Your task to perform on an android device: see creations saved in the google photos Image 0: 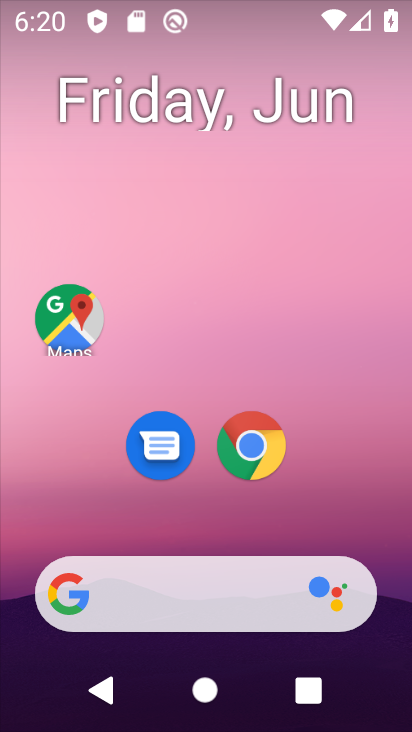
Step 0: drag from (197, 526) to (182, 118)
Your task to perform on an android device: see creations saved in the google photos Image 1: 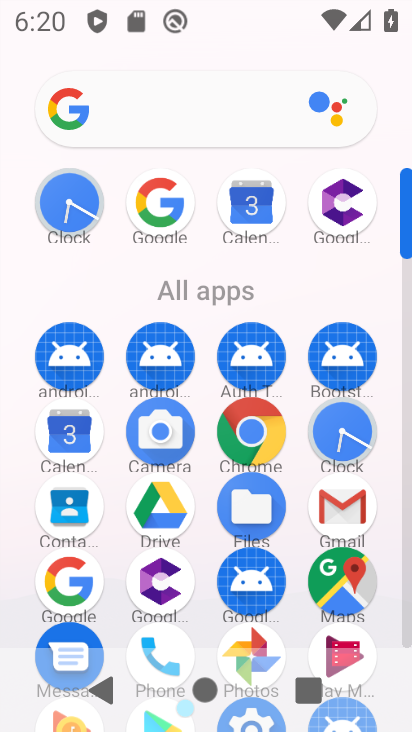
Step 1: drag from (192, 570) to (192, 323)
Your task to perform on an android device: see creations saved in the google photos Image 2: 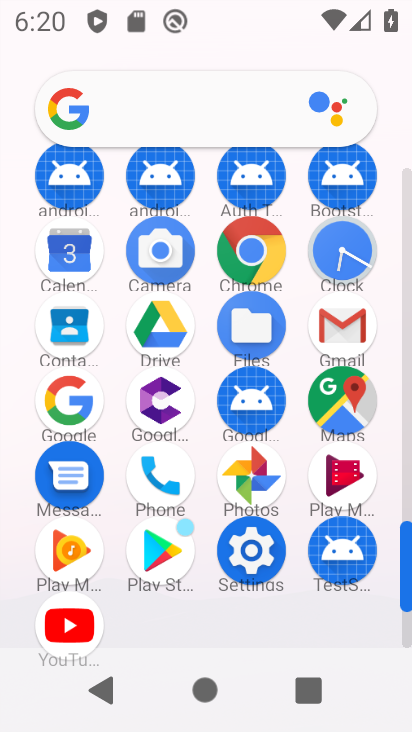
Step 2: click (253, 481)
Your task to perform on an android device: see creations saved in the google photos Image 3: 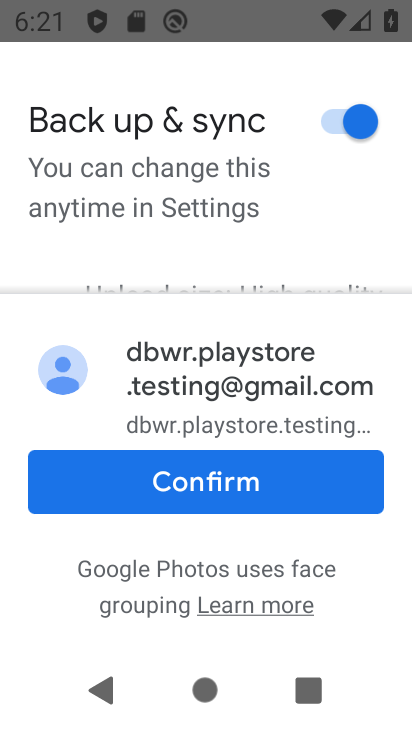
Step 3: click (235, 492)
Your task to perform on an android device: see creations saved in the google photos Image 4: 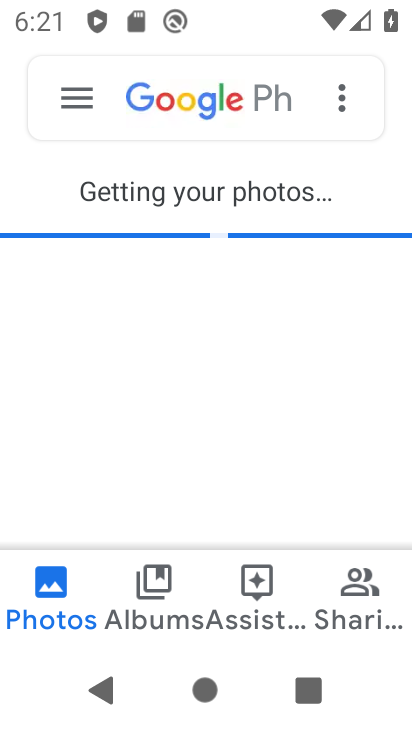
Step 4: click (179, 92)
Your task to perform on an android device: see creations saved in the google photos Image 5: 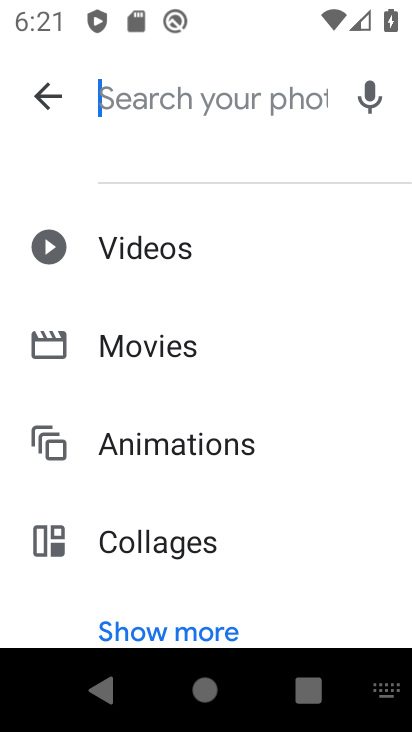
Step 5: click (181, 640)
Your task to perform on an android device: see creations saved in the google photos Image 6: 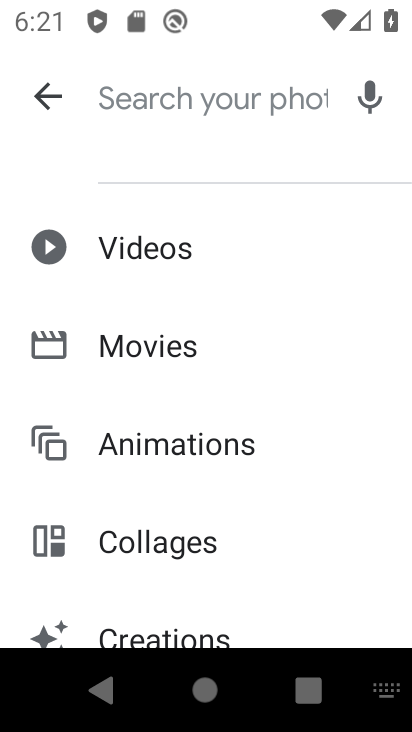
Step 6: click (181, 640)
Your task to perform on an android device: see creations saved in the google photos Image 7: 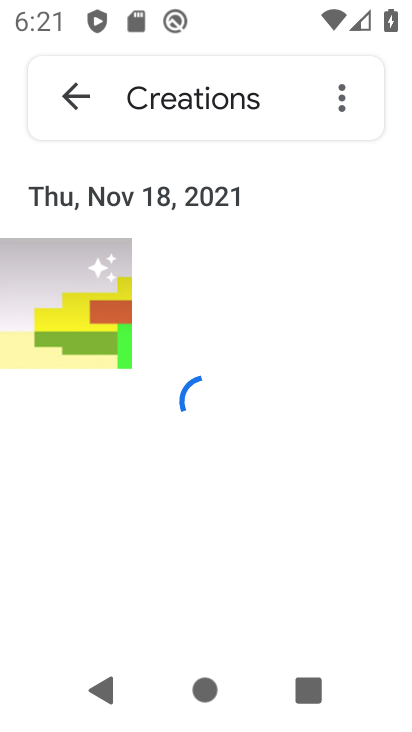
Step 7: task complete